Your task to perform on an android device: Do I have any events today? Image 0: 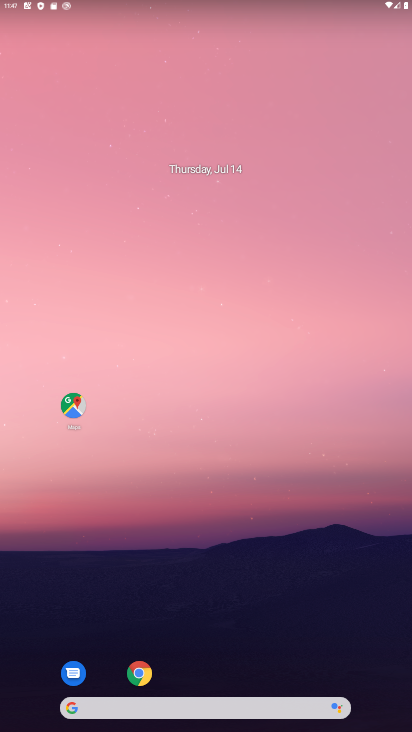
Step 0: drag from (261, 662) to (179, 0)
Your task to perform on an android device: Do I have any events today? Image 1: 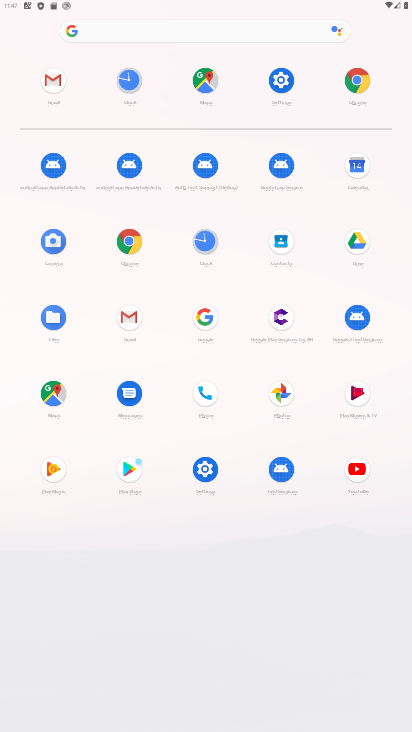
Step 1: click (359, 159)
Your task to perform on an android device: Do I have any events today? Image 2: 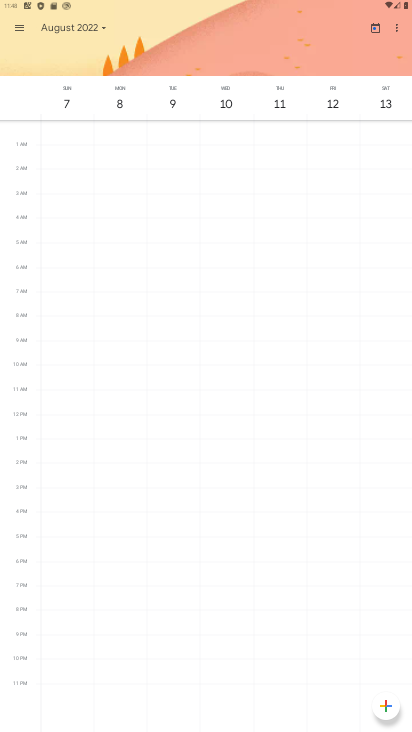
Step 2: click (15, 29)
Your task to perform on an android device: Do I have any events today? Image 3: 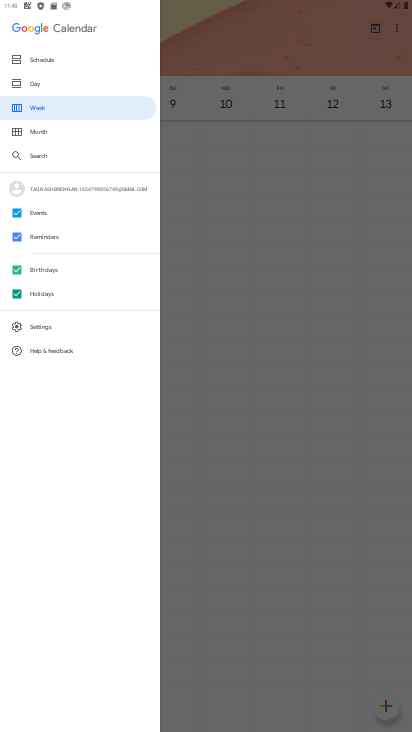
Step 3: click (39, 79)
Your task to perform on an android device: Do I have any events today? Image 4: 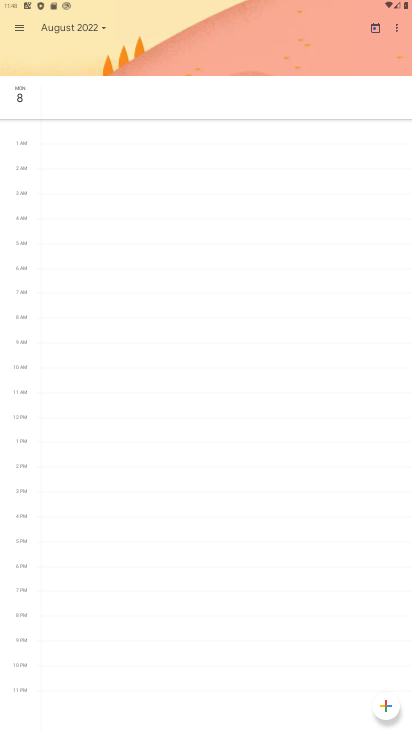
Step 4: click (93, 21)
Your task to perform on an android device: Do I have any events today? Image 5: 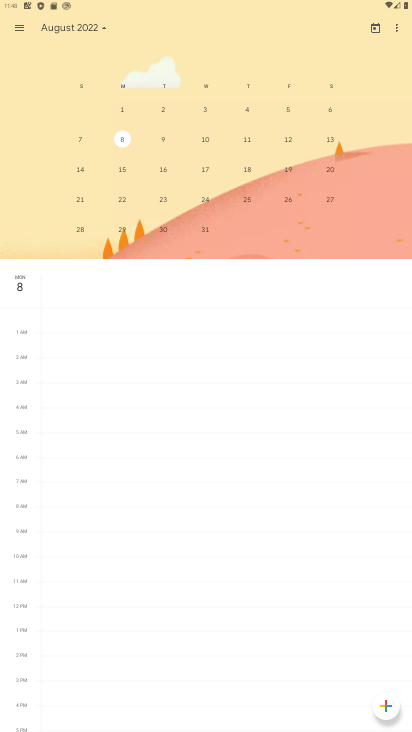
Step 5: drag from (65, 128) to (410, 169)
Your task to perform on an android device: Do I have any events today? Image 6: 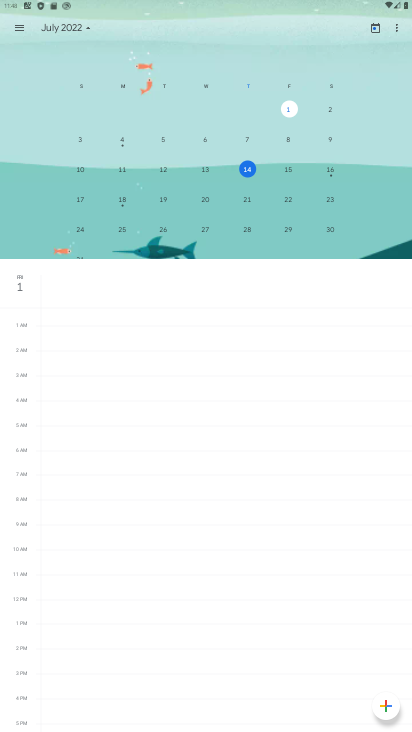
Step 6: click (252, 166)
Your task to perform on an android device: Do I have any events today? Image 7: 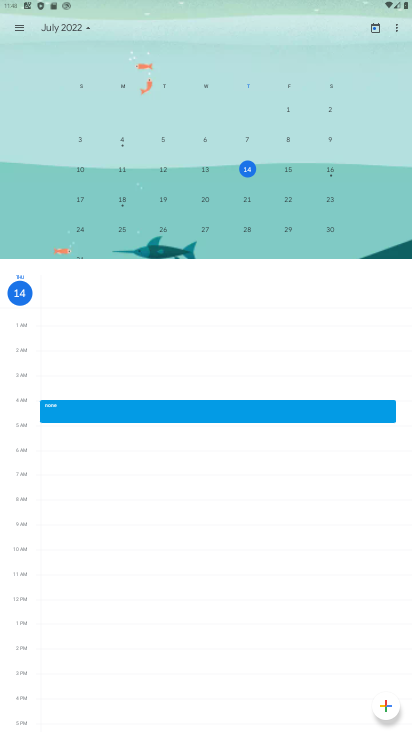
Step 7: click (312, 543)
Your task to perform on an android device: Do I have any events today? Image 8: 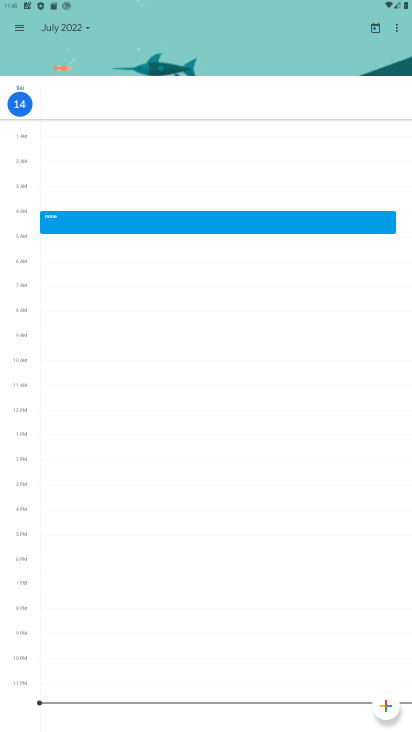
Step 8: task complete